Your task to perform on an android device: Set the phone to "Do not disturb". Image 0: 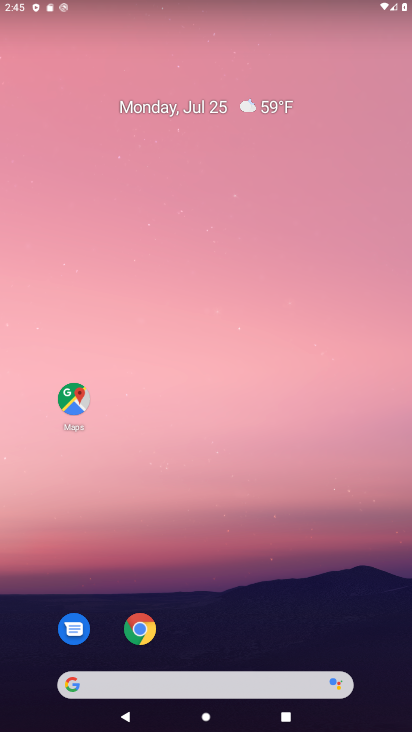
Step 0: drag from (234, 12) to (197, 516)
Your task to perform on an android device: Set the phone to "Do not disturb". Image 1: 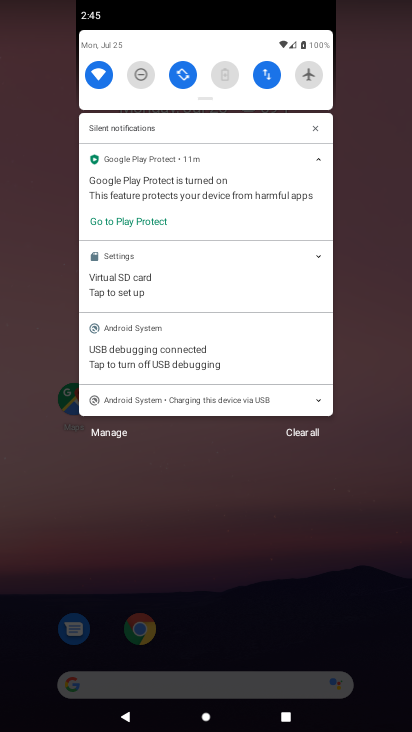
Step 1: click (145, 73)
Your task to perform on an android device: Set the phone to "Do not disturb". Image 2: 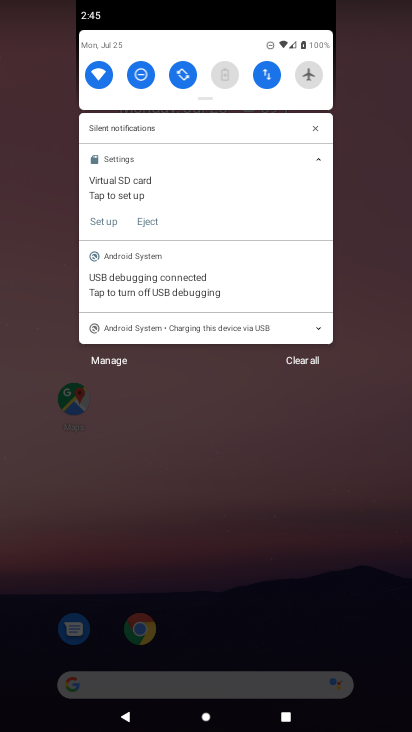
Step 2: task complete